Your task to perform on an android device: Open calendar and show me the fourth week of next month Image 0: 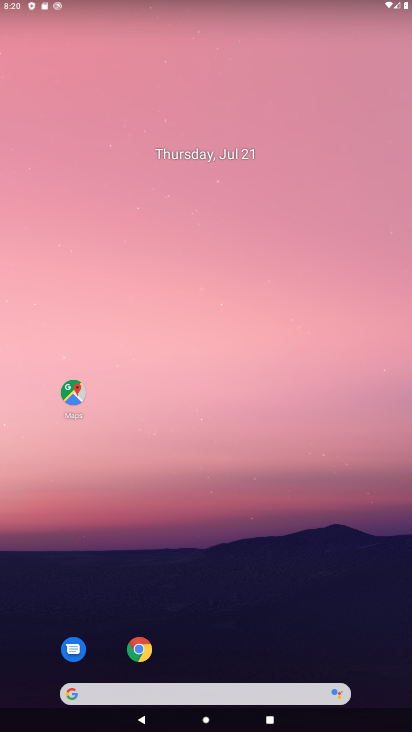
Step 0: drag from (236, 657) to (282, 108)
Your task to perform on an android device: Open calendar and show me the fourth week of next month Image 1: 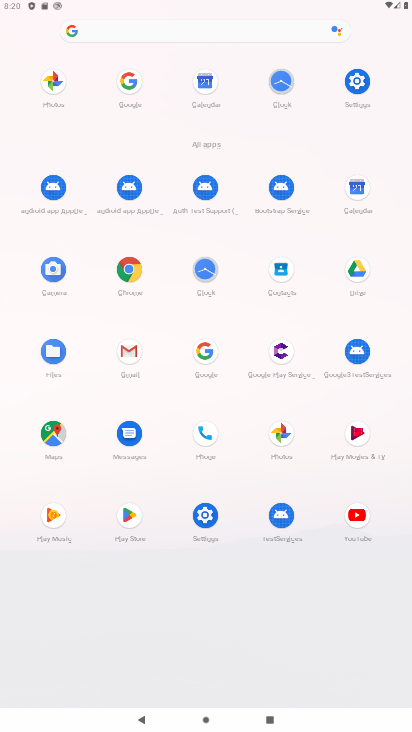
Step 1: click (353, 183)
Your task to perform on an android device: Open calendar and show me the fourth week of next month Image 2: 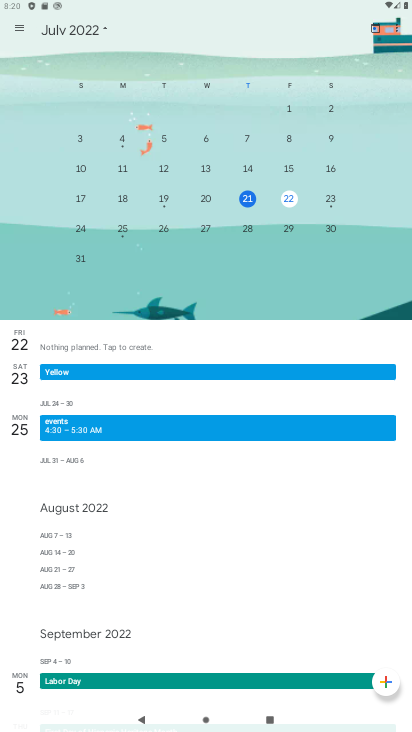
Step 2: drag from (383, 259) to (9, 218)
Your task to perform on an android device: Open calendar and show me the fourth week of next month Image 3: 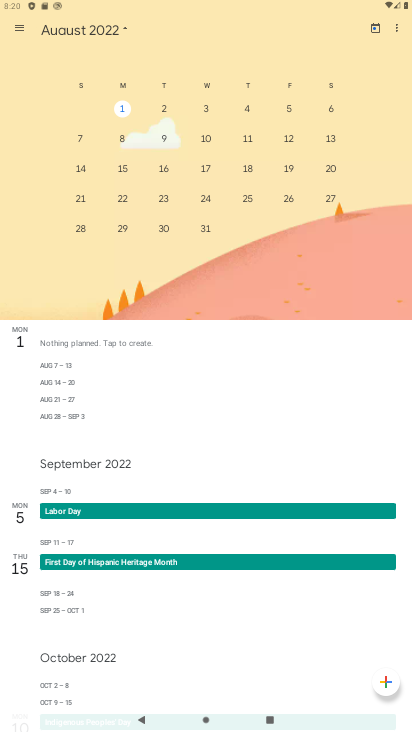
Step 3: click (249, 198)
Your task to perform on an android device: Open calendar and show me the fourth week of next month Image 4: 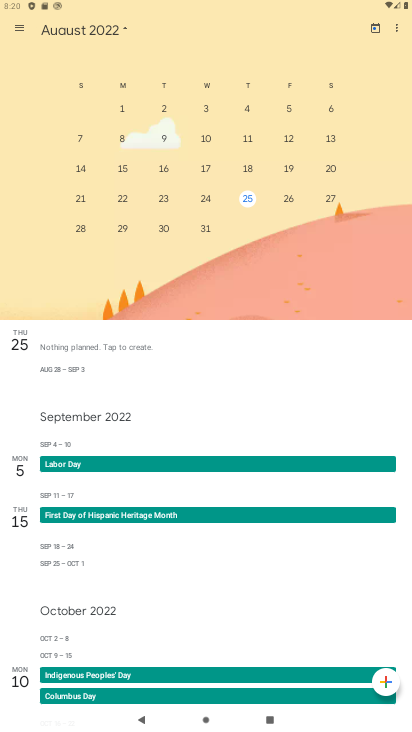
Step 4: task complete